Your task to perform on an android device: Open settings Image 0: 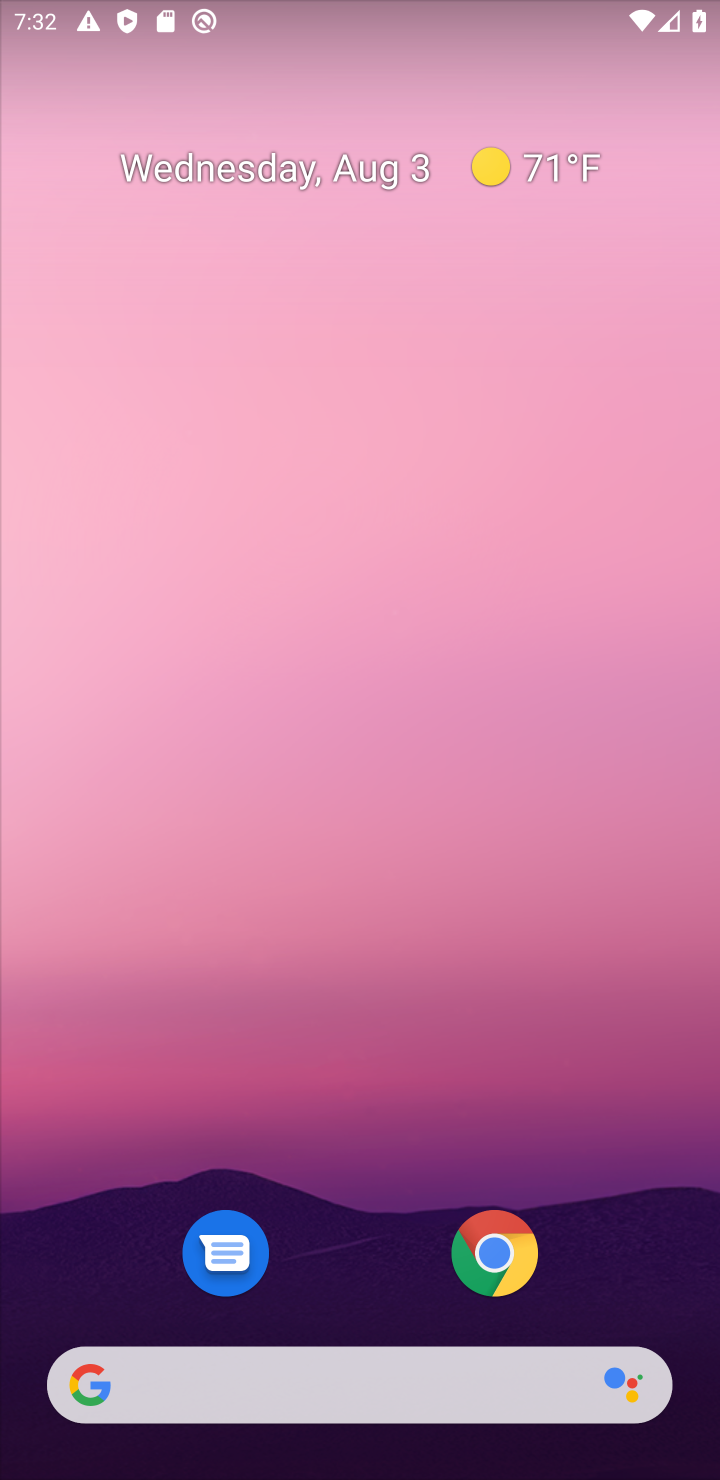
Step 0: drag from (377, 934) to (425, 230)
Your task to perform on an android device: Open settings Image 1: 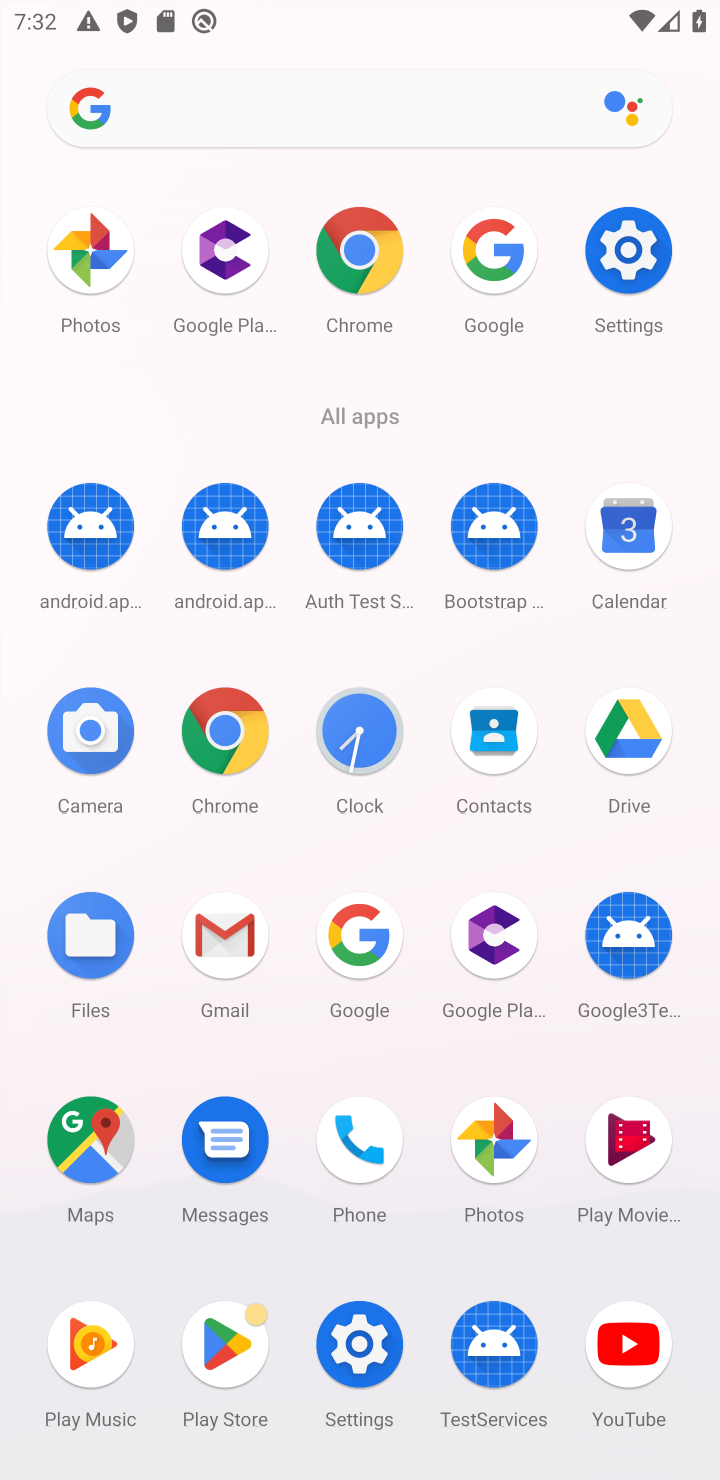
Step 1: click (612, 274)
Your task to perform on an android device: Open settings Image 2: 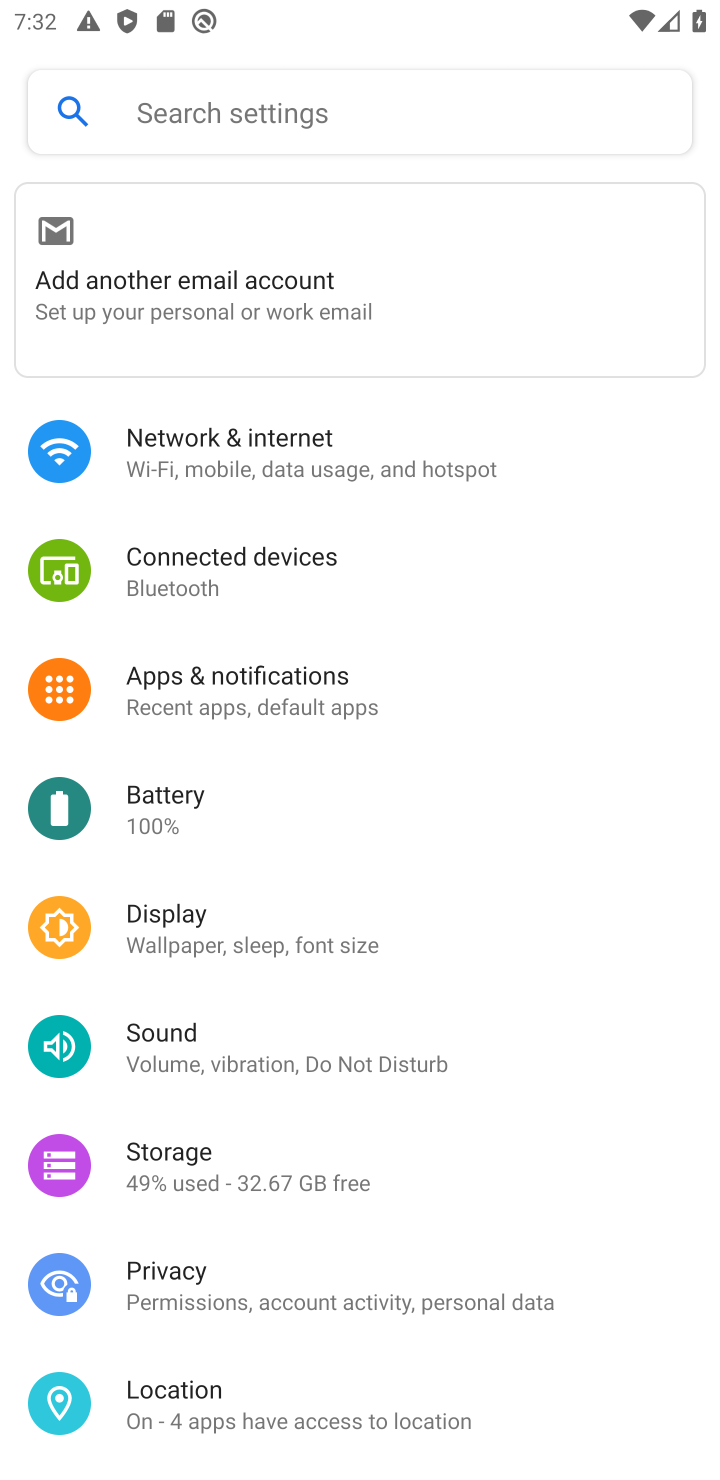
Step 2: task complete